Your task to perform on an android device: Open Google Chrome and open the bookmarks view Image 0: 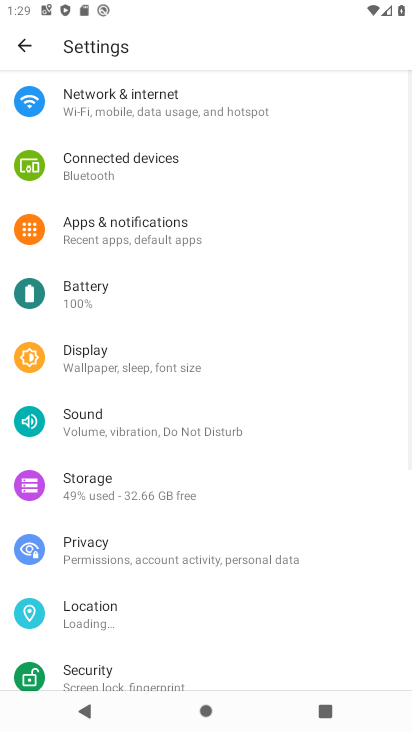
Step 0: press home button
Your task to perform on an android device: Open Google Chrome and open the bookmarks view Image 1: 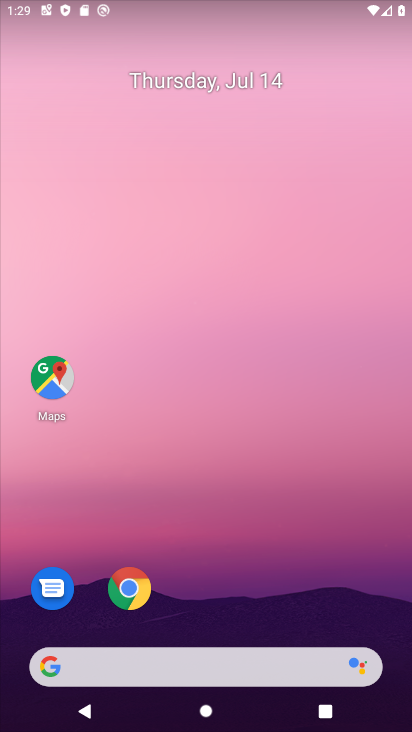
Step 1: click (131, 589)
Your task to perform on an android device: Open Google Chrome and open the bookmarks view Image 2: 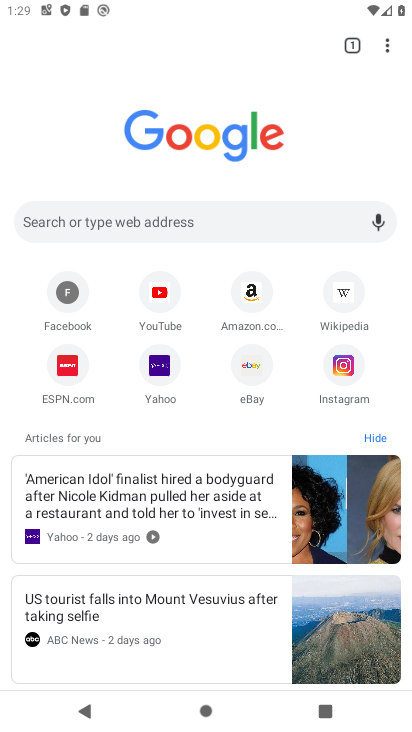
Step 2: click (388, 46)
Your task to perform on an android device: Open Google Chrome and open the bookmarks view Image 3: 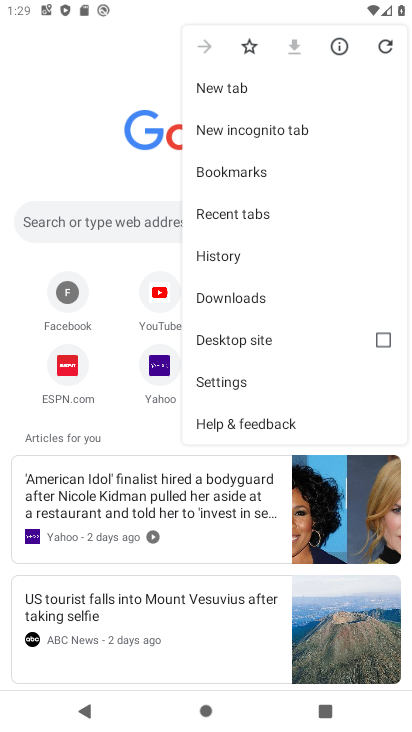
Step 3: click (276, 179)
Your task to perform on an android device: Open Google Chrome and open the bookmarks view Image 4: 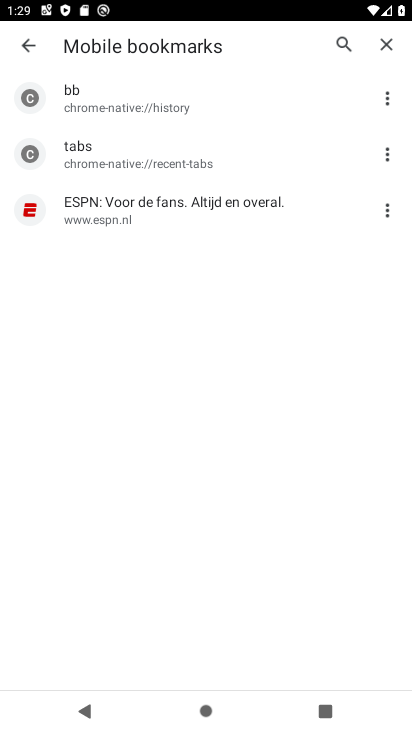
Step 4: task complete